Your task to perform on an android device: turn off translation in the chrome app Image 0: 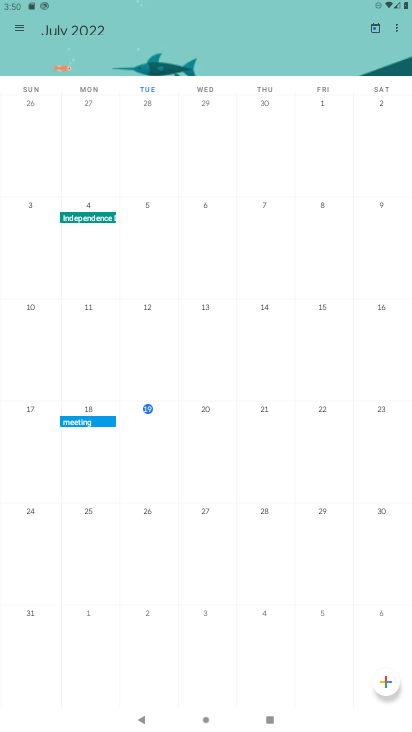
Step 0: press home button
Your task to perform on an android device: turn off translation in the chrome app Image 1: 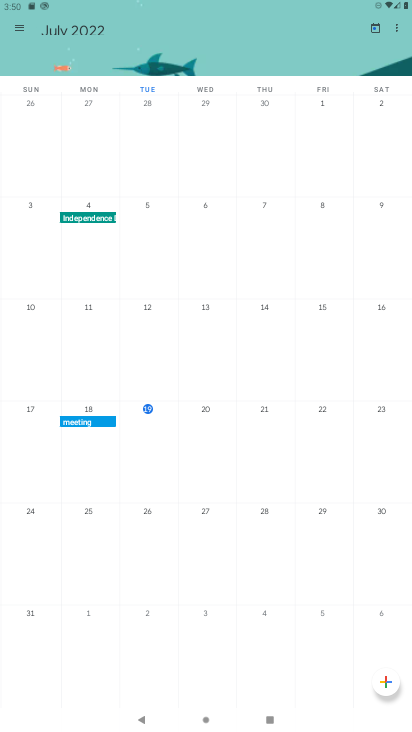
Step 1: press home button
Your task to perform on an android device: turn off translation in the chrome app Image 2: 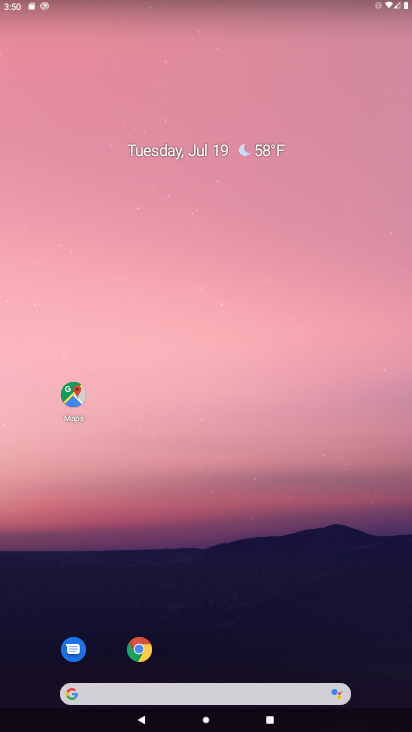
Step 2: click (137, 647)
Your task to perform on an android device: turn off translation in the chrome app Image 3: 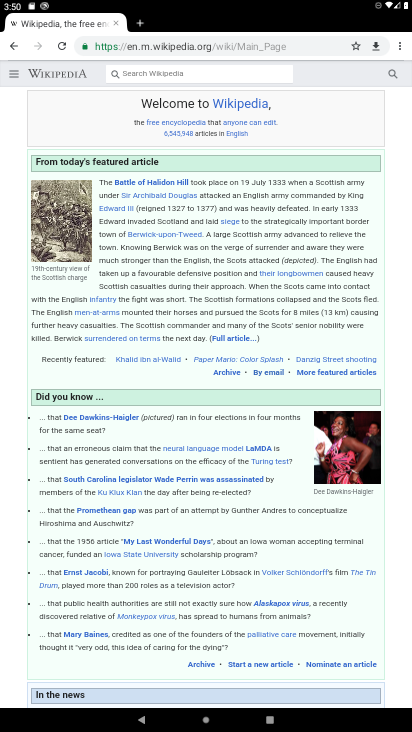
Step 3: click (399, 47)
Your task to perform on an android device: turn off translation in the chrome app Image 4: 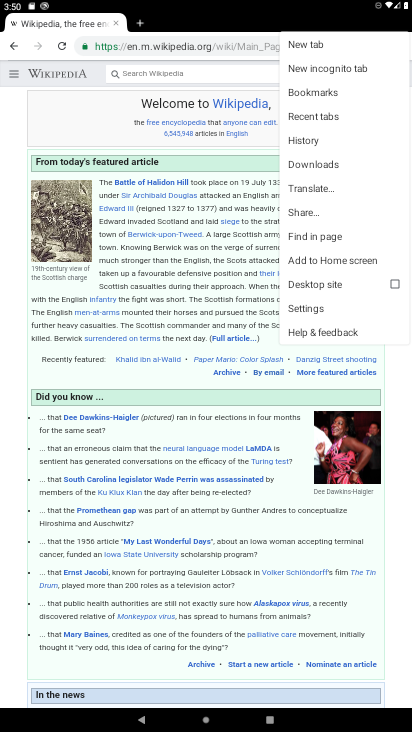
Step 4: click (301, 307)
Your task to perform on an android device: turn off translation in the chrome app Image 5: 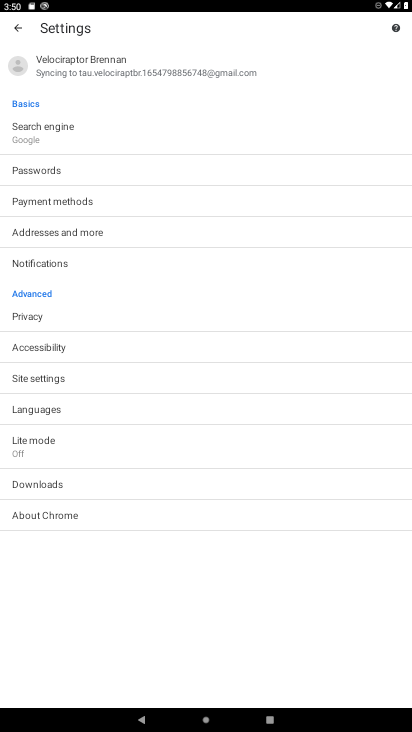
Step 5: click (36, 408)
Your task to perform on an android device: turn off translation in the chrome app Image 6: 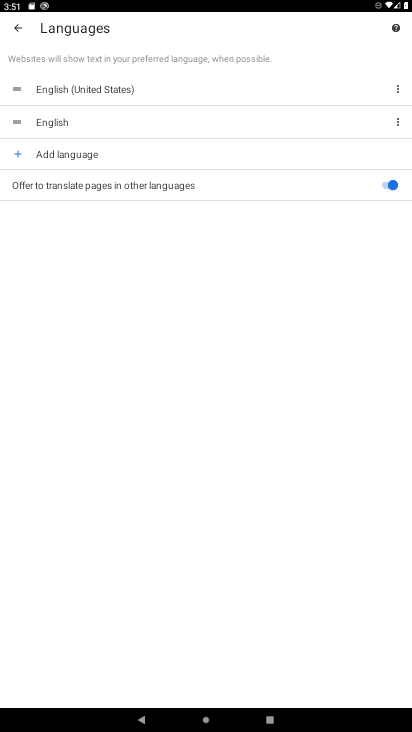
Step 6: click (385, 183)
Your task to perform on an android device: turn off translation in the chrome app Image 7: 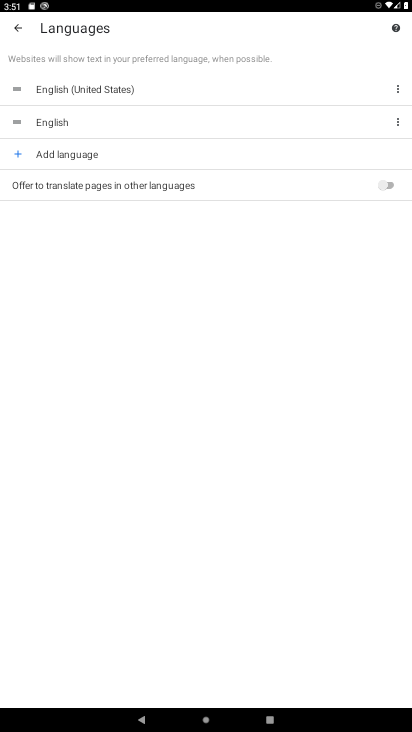
Step 7: task complete